Your task to perform on an android device: open app "Airtel Thanks" (install if not already installed) Image 0: 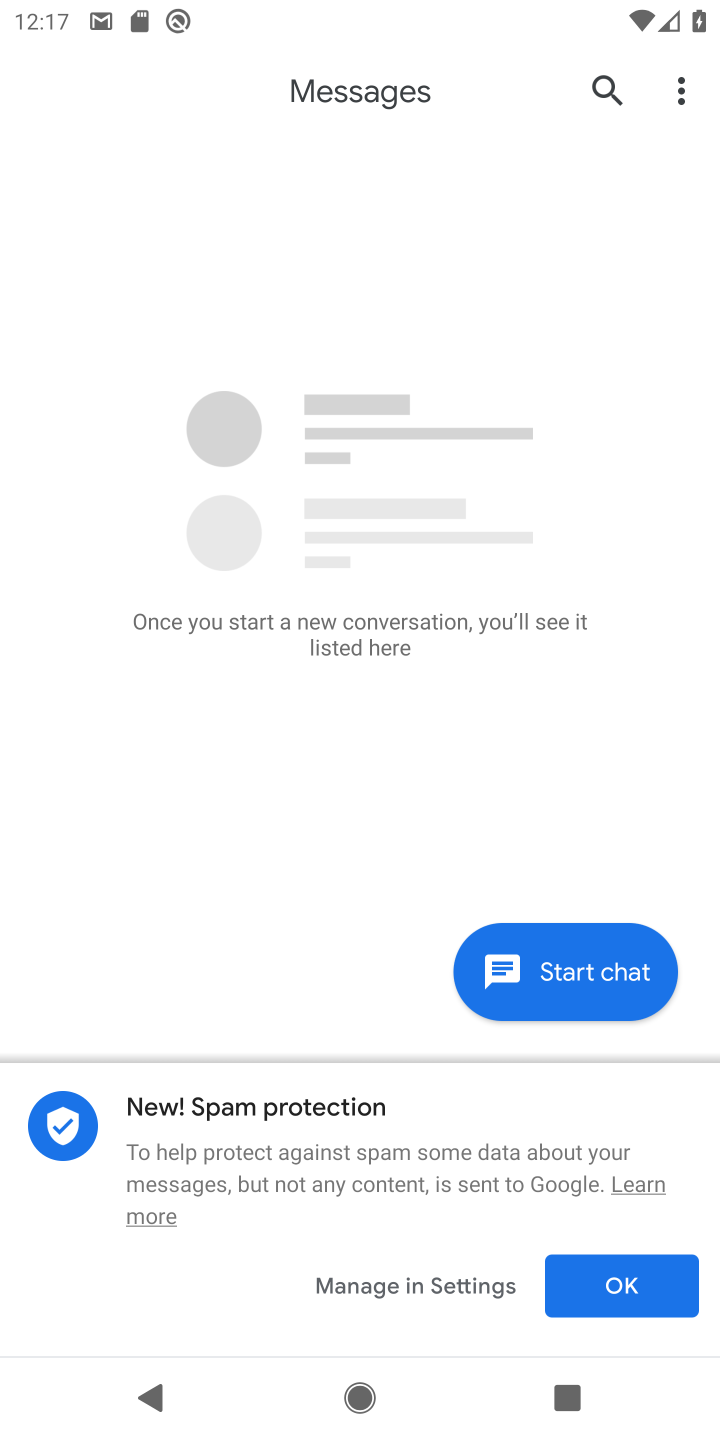
Step 0: press home button
Your task to perform on an android device: open app "Airtel Thanks" (install if not already installed) Image 1: 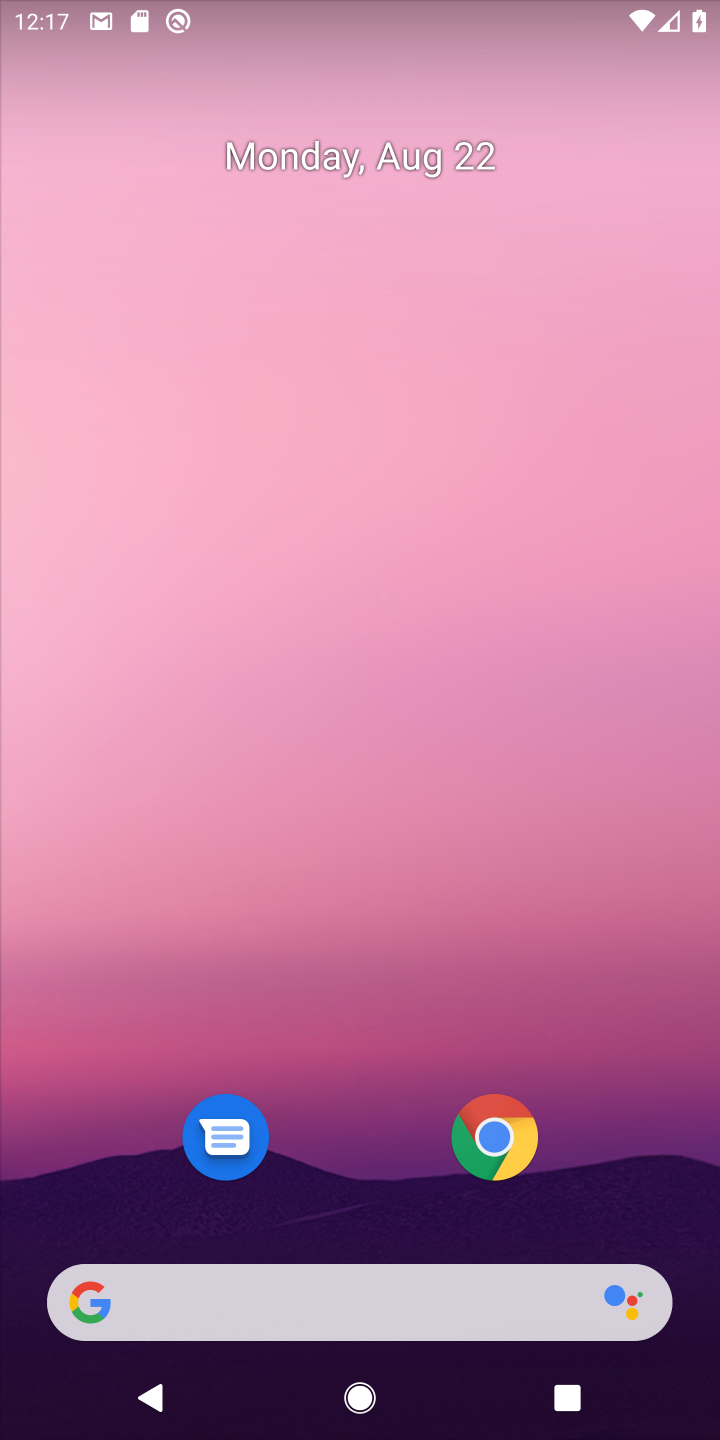
Step 1: drag from (643, 1078) to (594, 151)
Your task to perform on an android device: open app "Airtel Thanks" (install if not already installed) Image 2: 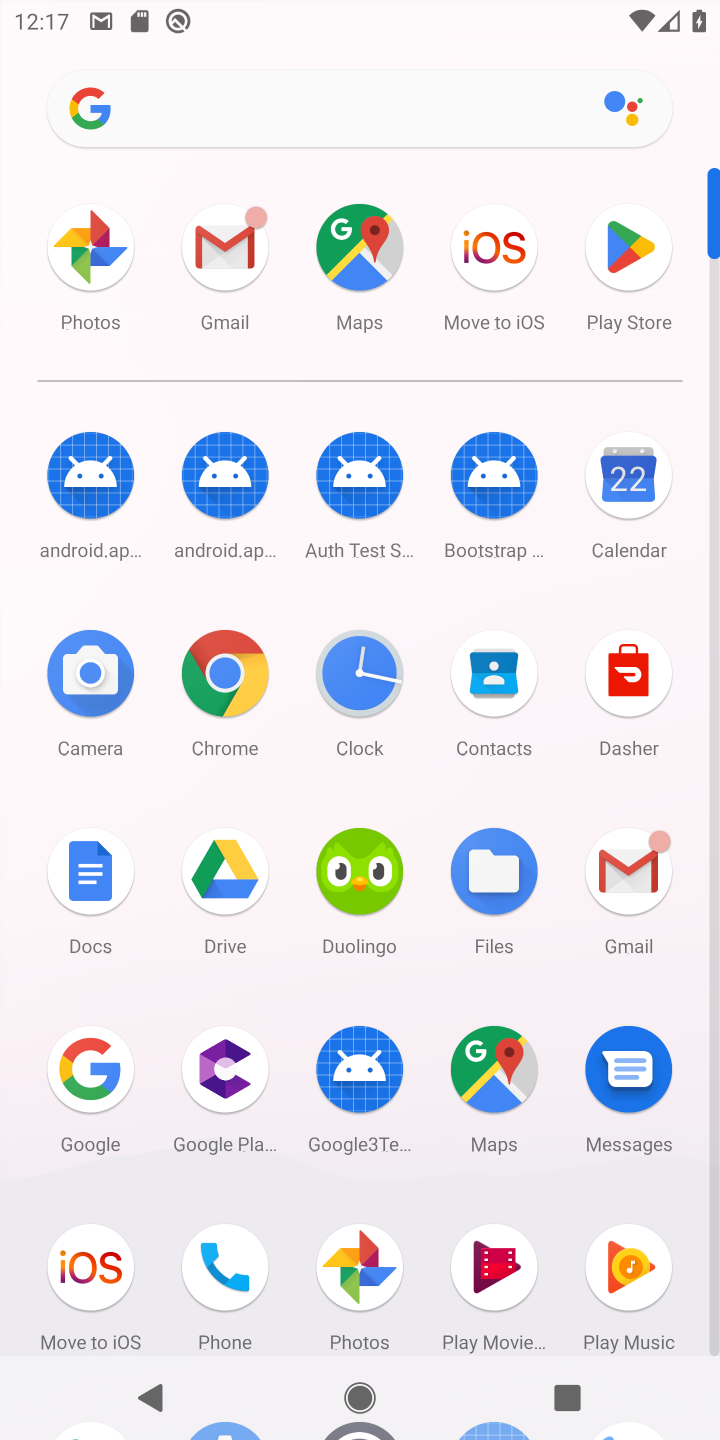
Step 2: drag from (554, 1187) to (528, 405)
Your task to perform on an android device: open app "Airtel Thanks" (install if not already installed) Image 3: 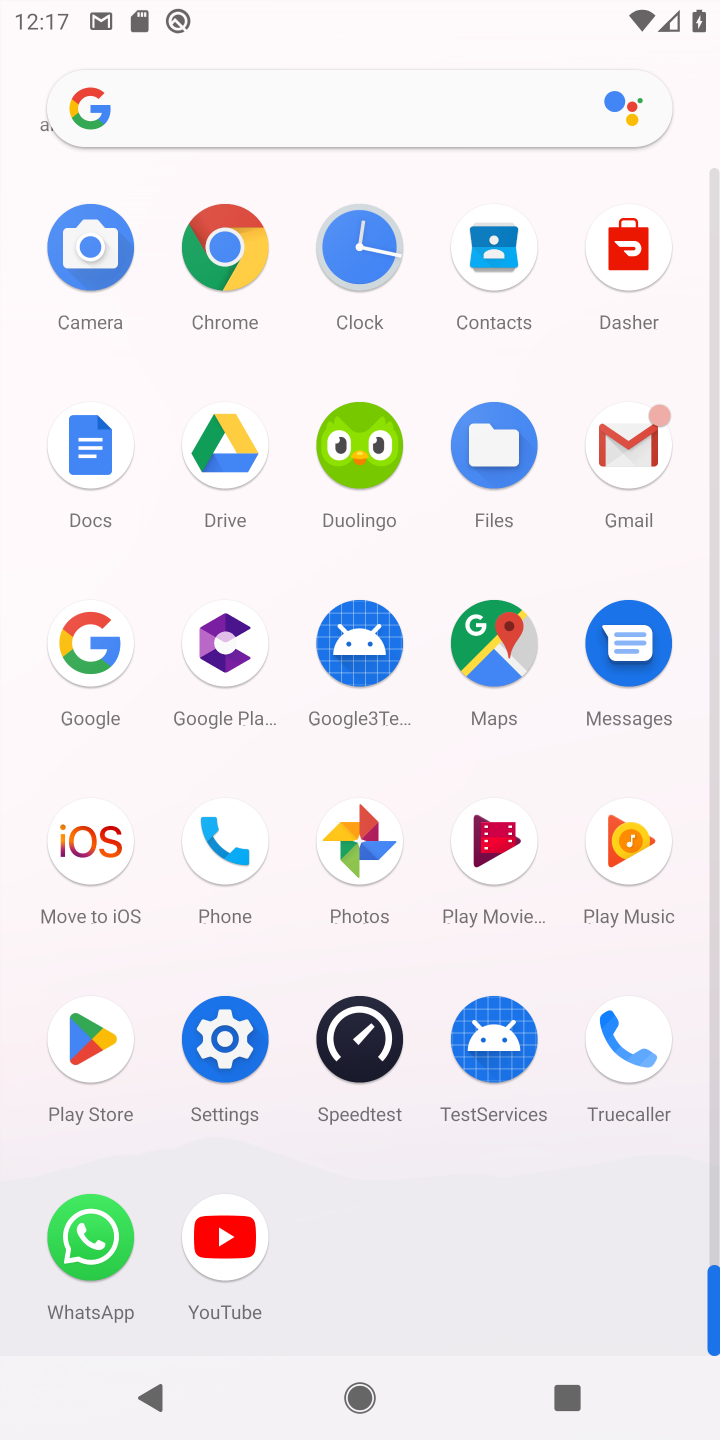
Step 3: click (95, 1041)
Your task to perform on an android device: open app "Airtel Thanks" (install if not already installed) Image 4: 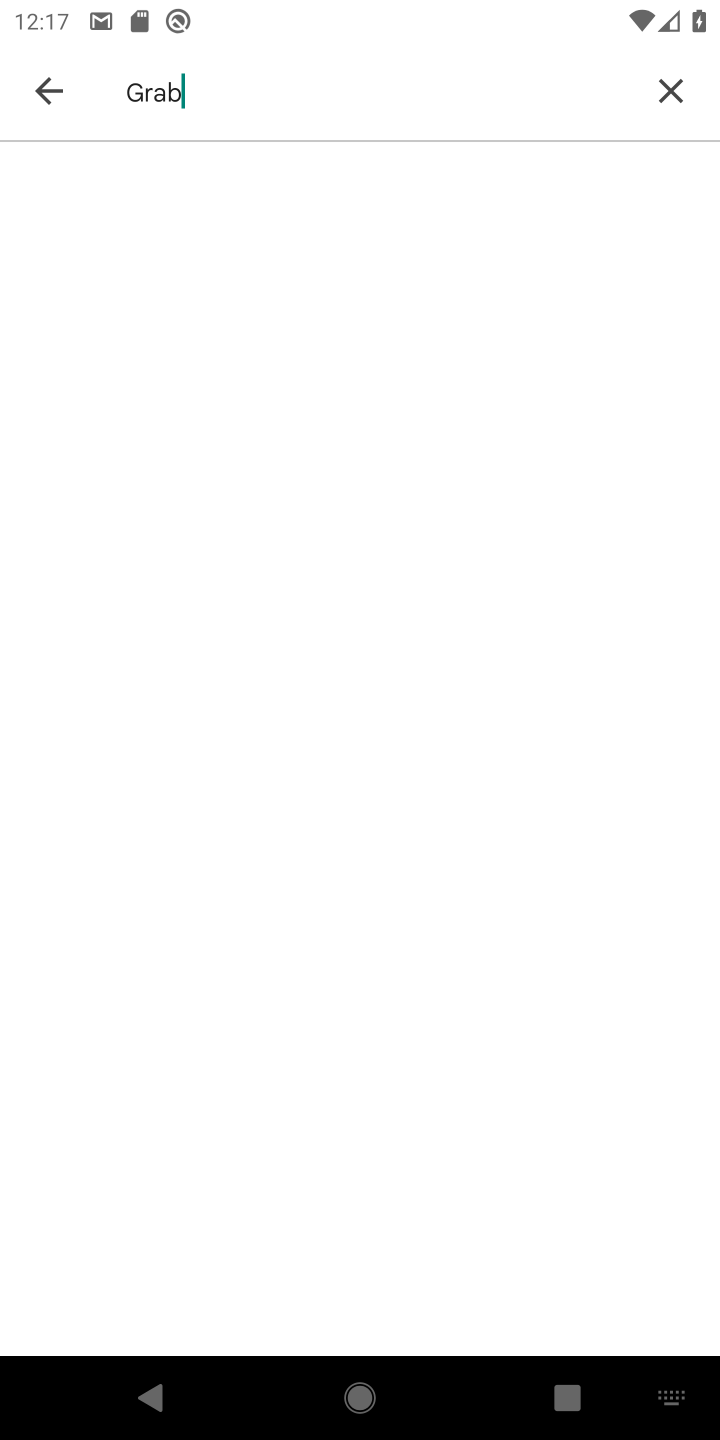
Step 4: click (665, 83)
Your task to perform on an android device: open app "Airtel Thanks" (install if not already installed) Image 5: 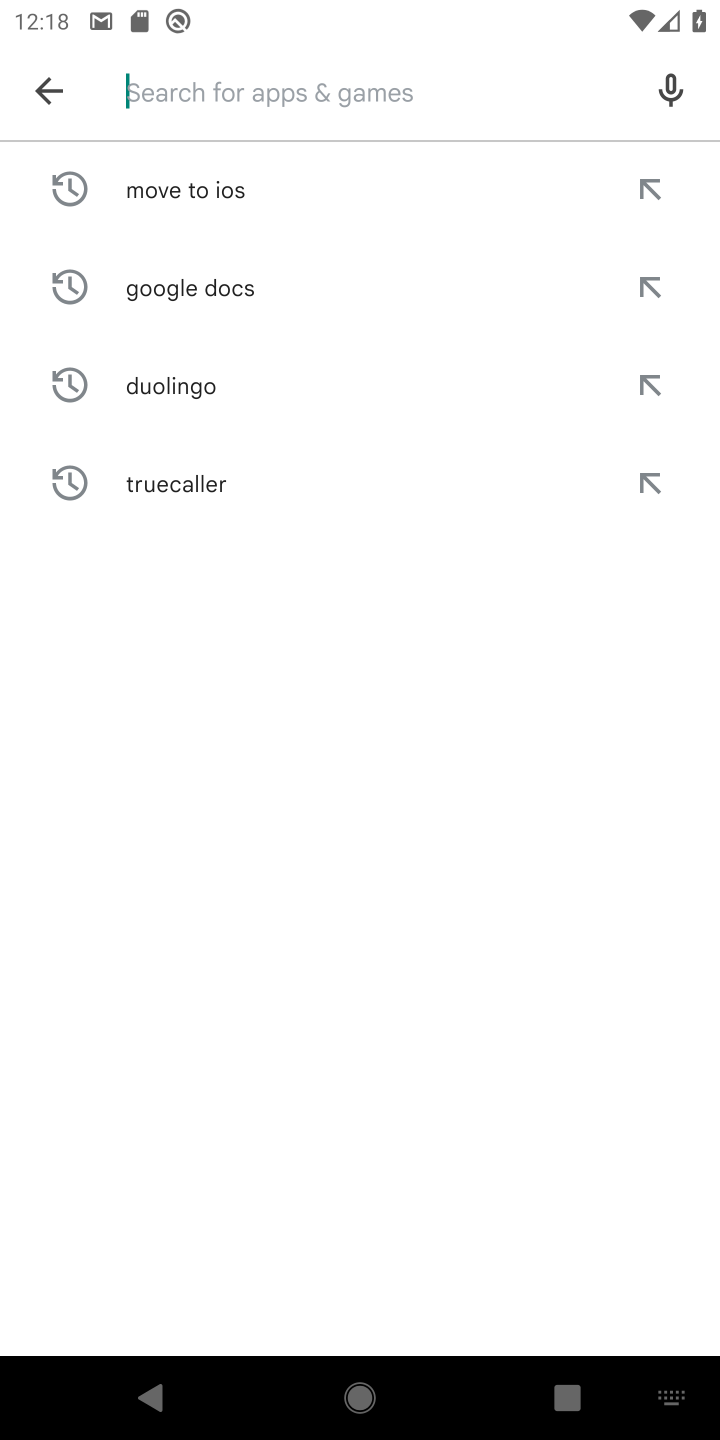
Step 5: type "Airtel Thanks"
Your task to perform on an android device: open app "Airtel Thanks" (install if not already installed) Image 6: 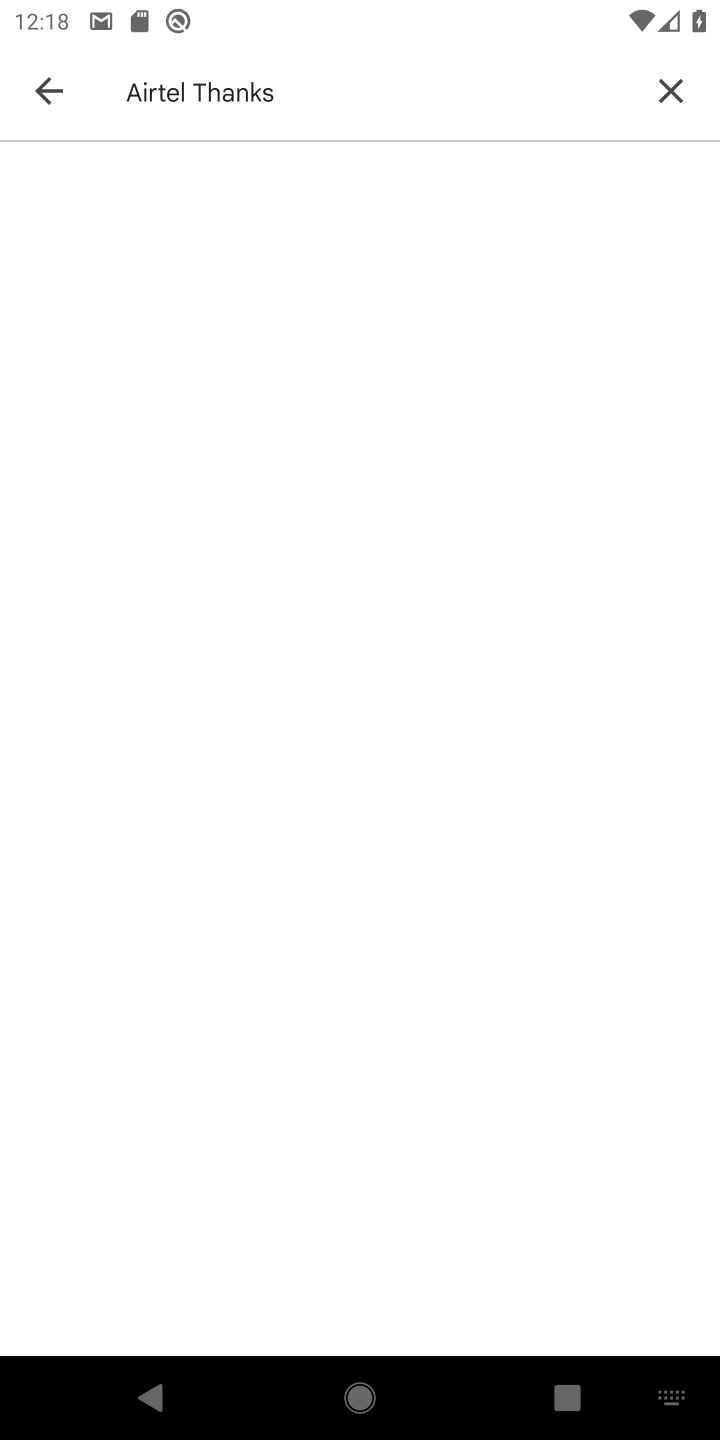
Step 6: task complete